Your task to perform on an android device: toggle javascript in the chrome app Image 0: 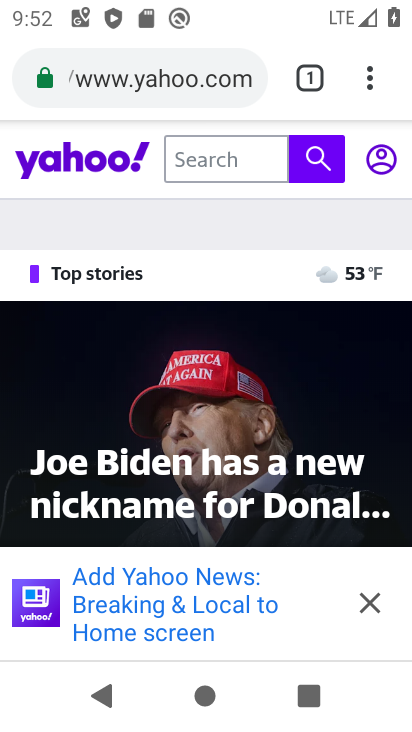
Step 0: drag from (369, 71) to (120, 554)
Your task to perform on an android device: toggle javascript in the chrome app Image 1: 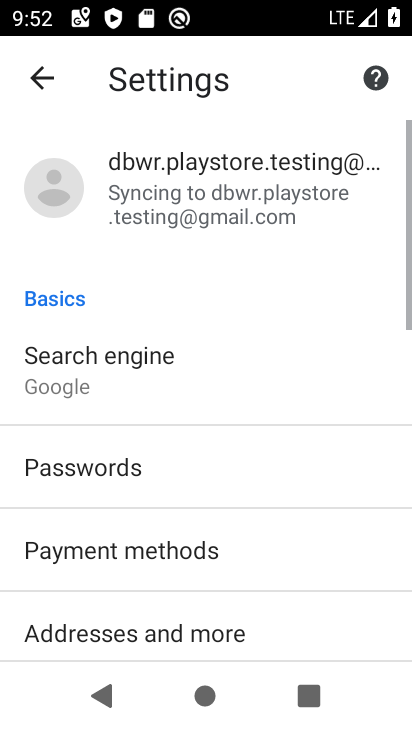
Step 1: drag from (210, 566) to (255, 67)
Your task to perform on an android device: toggle javascript in the chrome app Image 2: 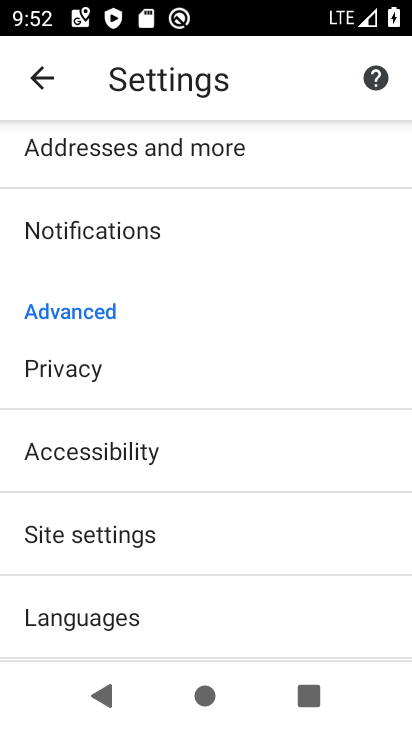
Step 2: click (146, 541)
Your task to perform on an android device: toggle javascript in the chrome app Image 3: 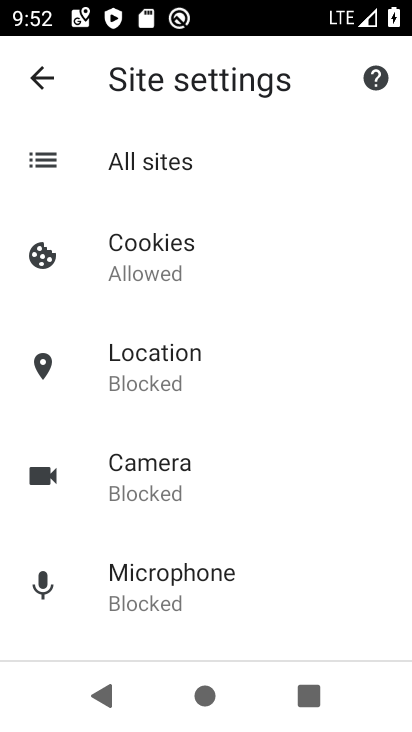
Step 3: drag from (217, 552) to (246, 119)
Your task to perform on an android device: toggle javascript in the chrome app Image 4: 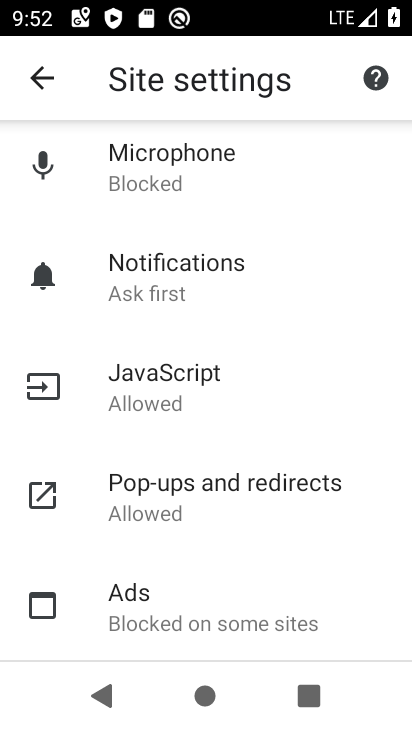
Step 4: click (144, 392)
Your task to perform on an android device: toggle javascript in the chrome app Image 5: 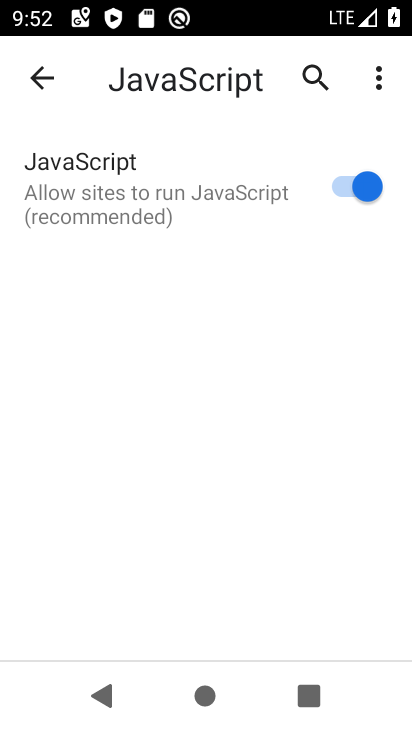
Step 5: click (345, 191)
Your task to perform on an android device: toggle javascript in the chrome app Image 6: 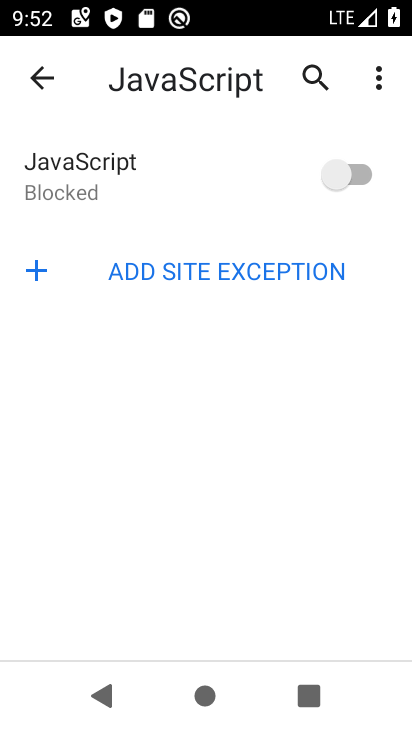
Step 6: task complete